Your task to perform on an android device: turn on the 12-hour format for clock Image 0: 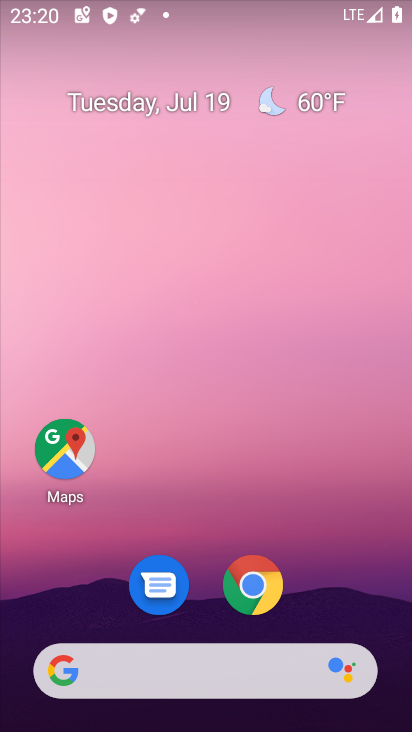
Step 0: drag from (317, 598) to (301, 1)
Your task to perform on an android device: turn on the 12-hour format for clock Image 1: 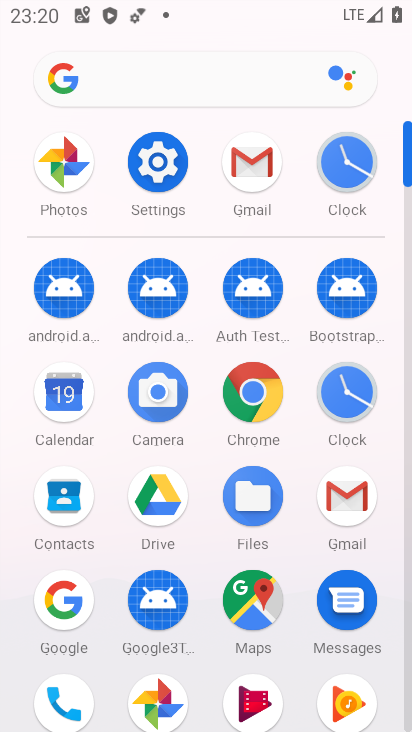
Step 1: click (342, 163)
Your task to perform on an android device: turn on the 12-hour format for clock Image 2: 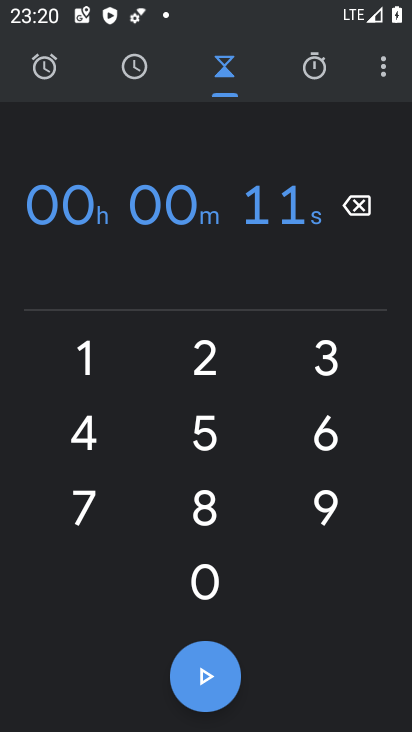
Step 2: click (381, 70)
Your task to perform on an android device: turn on the 12-hour format for clock Image 3: 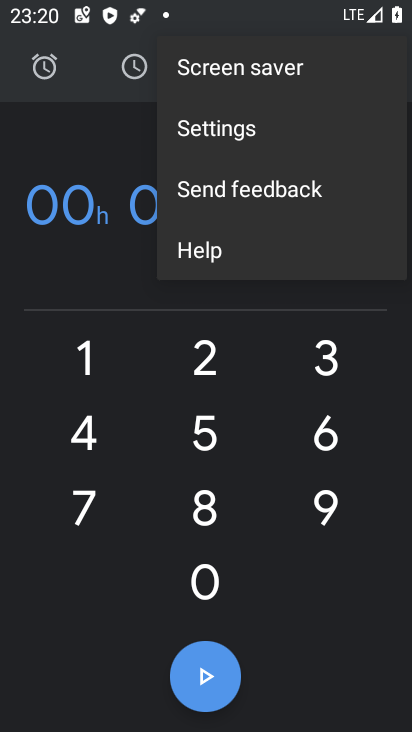
Step 3: click (280, 124)
Your task to perform on an android device: turn on the 12-hour format for clock Image 4: 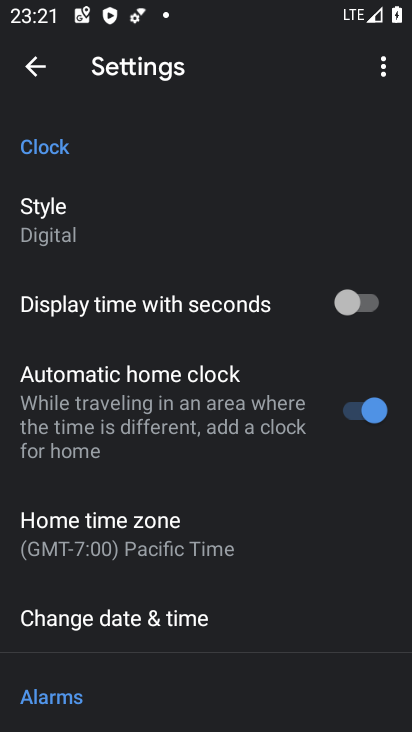
Step 4: drag from (285, 533) to (274, 243)
Your task to perform on an android device: turn on the 12-hour format for clock Image 5: 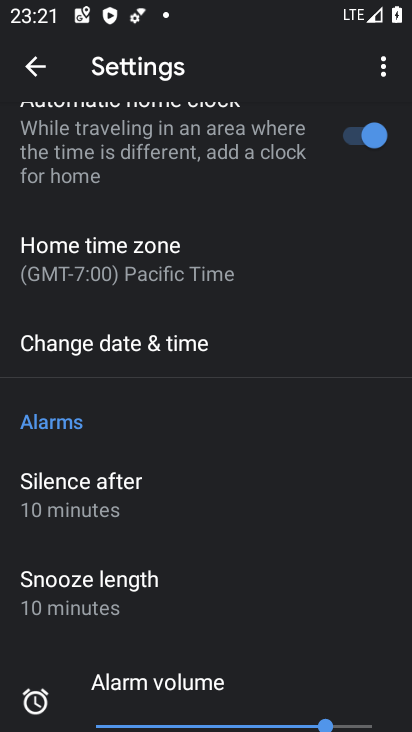
Step 5: click (274, 350)
Your task to perform on an android device: turn on the 12-hour format for clock Image 6: 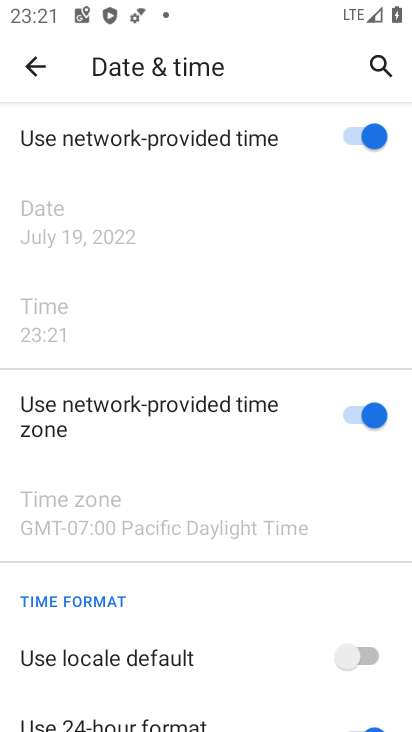
Step 6: drag from (305, 556) to (292, 351)
Your task to perform on an android device: turn on the 12-hour format for clock Image 7: 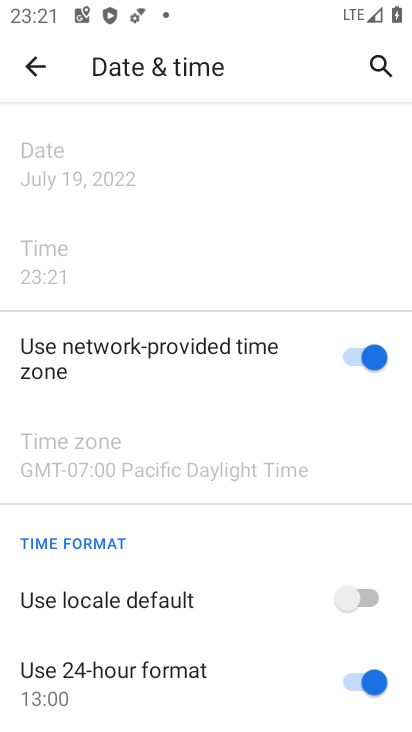
Step 7: click (366, 687)
Your task to perform on an android device: turn on the 12-hour format for clock Image 8: 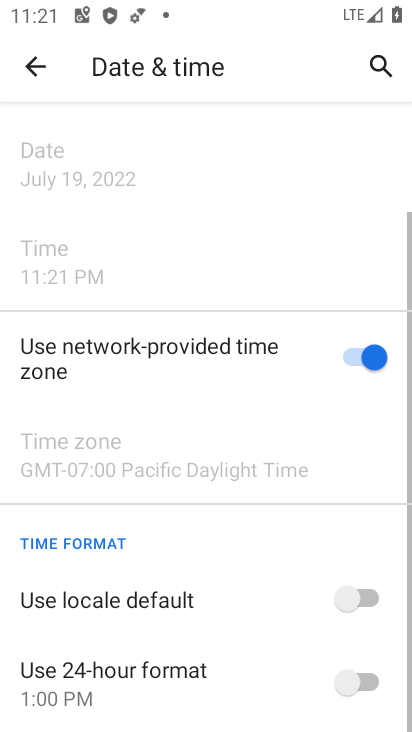
Step 8: click (368, 600)
Your task to perform on an android device: turn on the 12-hour format for clock Image 9: 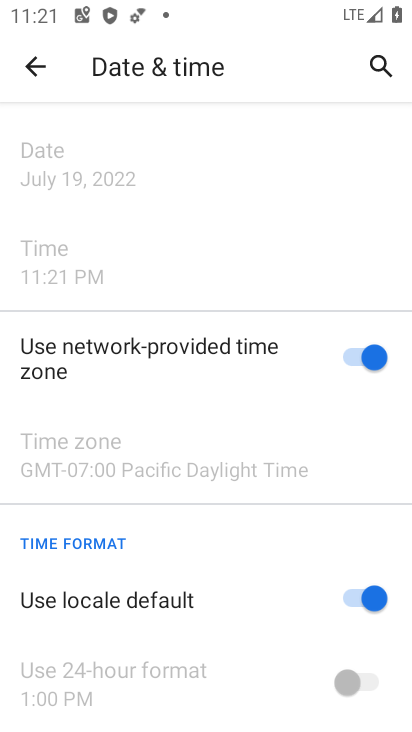
Step 9: task complete